Your task to perform on an android device: Open Google Chrome and open the bookmarks view Image 0: 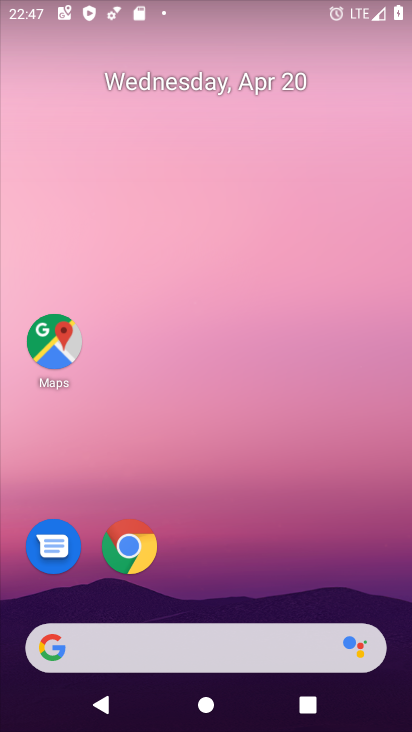
Step 0: click (126, 543)
Your task to perform on an android device: Open Google Chrome and open the bookmarks view Image 1: 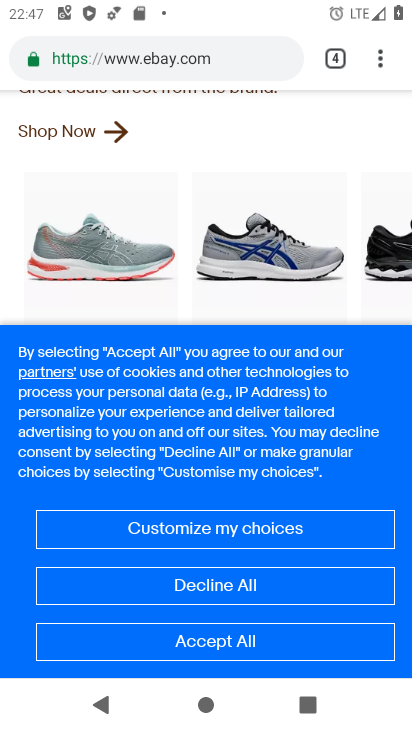
Step 1: task complete